Your task to perform on an android device: open chrome privacy settings Image 0: 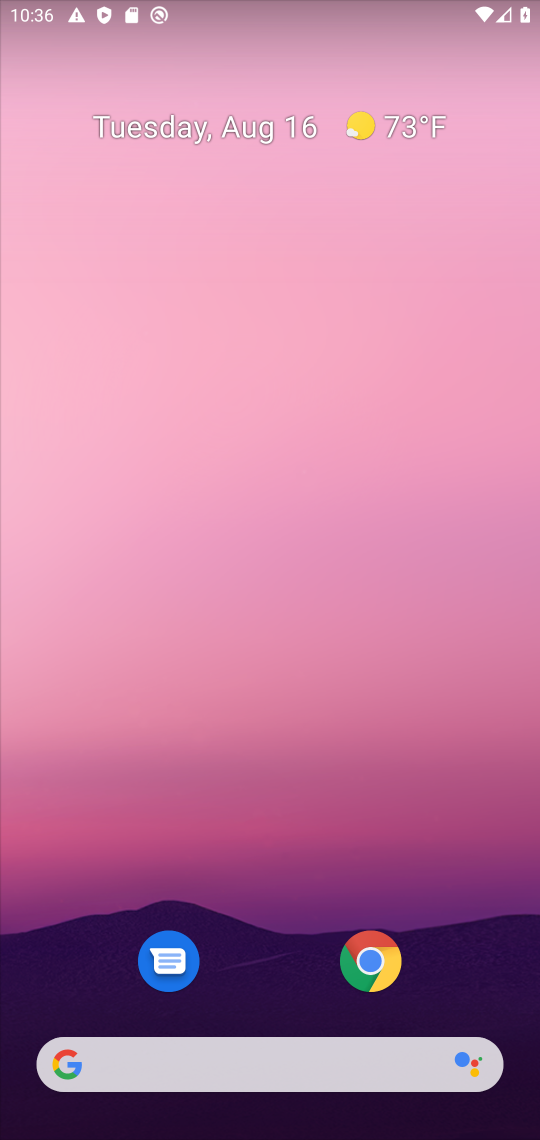
Step 0: drag from (293, 845) to (362, 136)
Your task to perform on an android device: open chrome privacy settings Image 1: 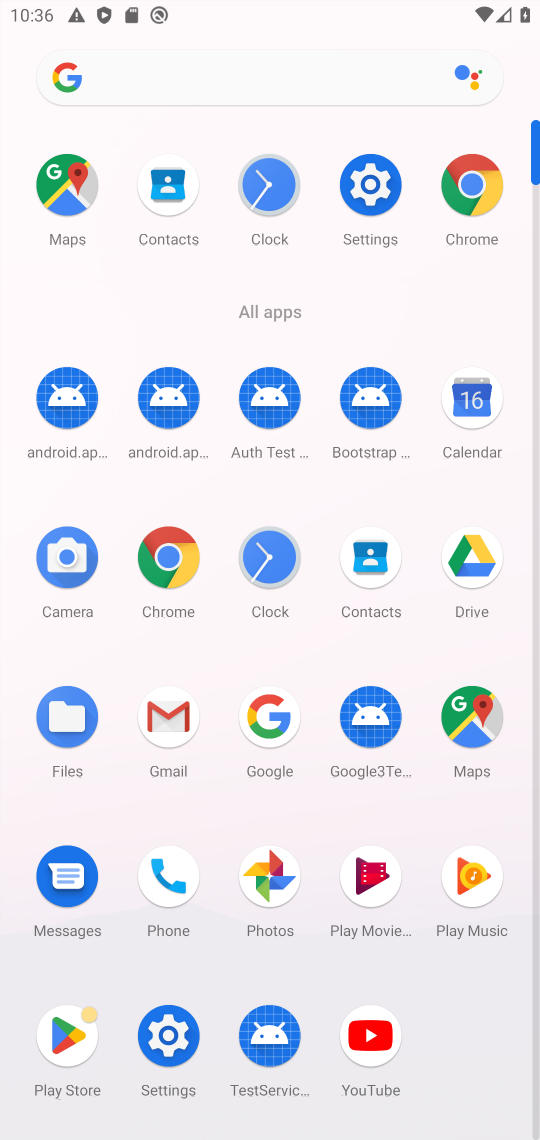
Step 1: click (366, 178)
Your task to perform on an android device: open chrome privacy settings Image 2: 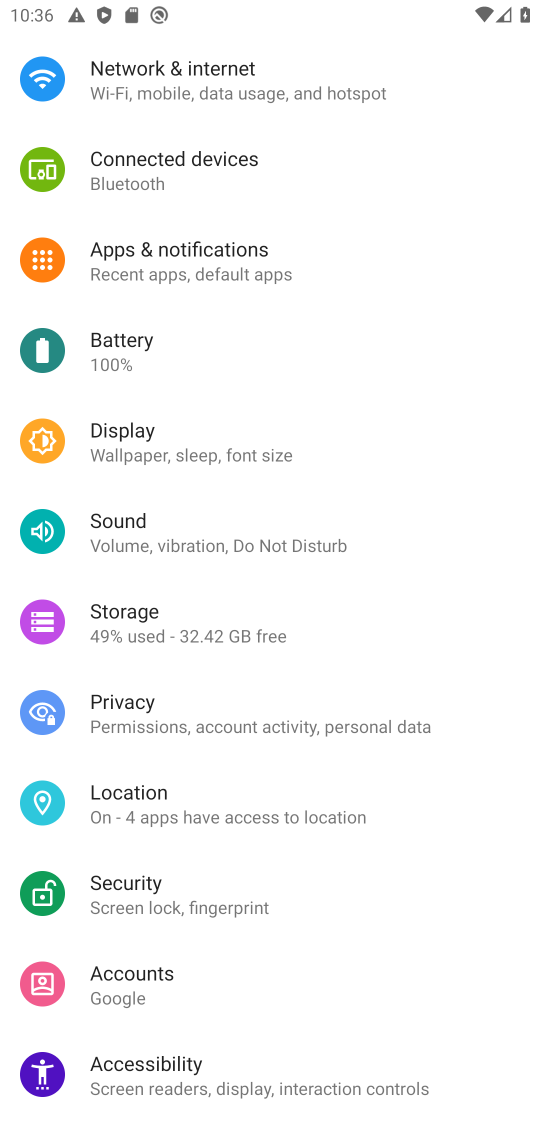
Step 2: task complete